Your task to perform on an android device: see creations saved in the google photos Image 0: 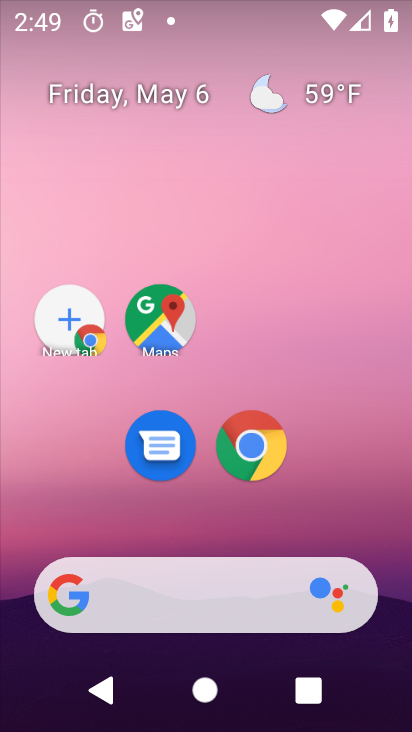
Step 0: drag from (401, 577) to (336, 88)
Your task to perform on an android device: see creations saved in the google photos Image 1: 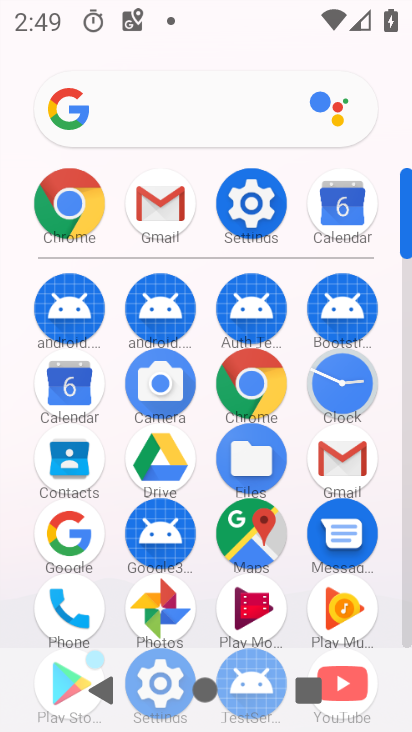
Step 1: drag from (358, 484) to (244, 208)
Your task to perform on an android device: see creations saved in the google photos Image 2: 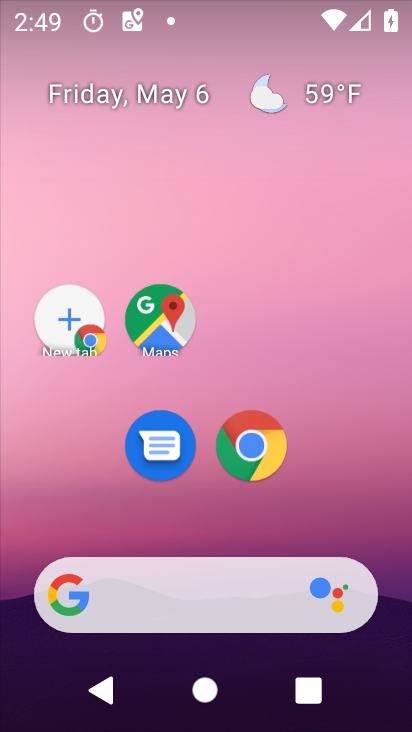
Step 2: drag from (368, 535) to (285, 351)
Your task to perform on an android device: see creations saved in the google photos Image 3: 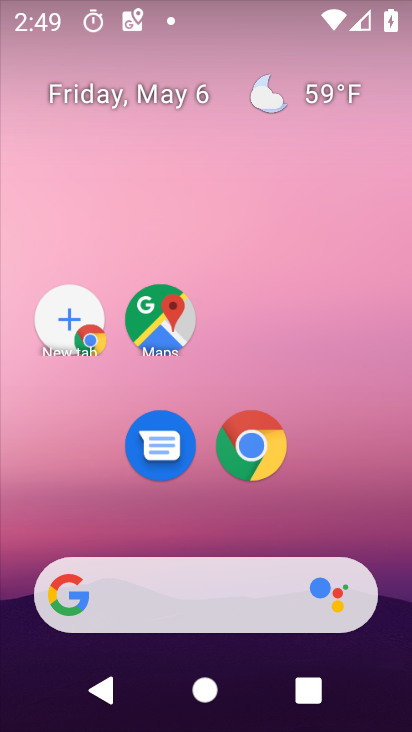
Step 3: drag from (351, 574) to (288, 137)
Your task to perform on an android device: see creations saved in the google photos Image 4: 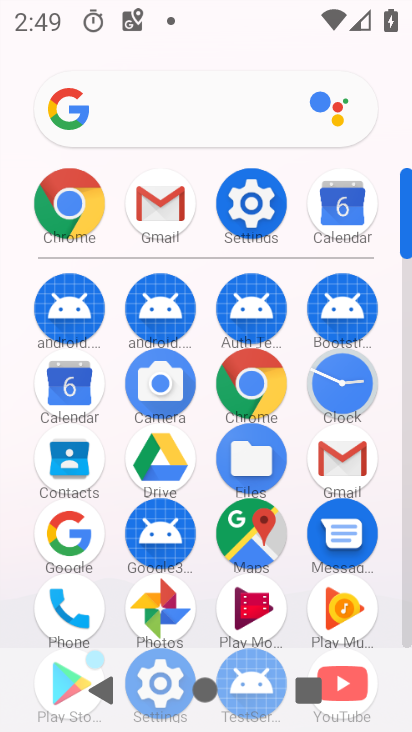
Step 4: click (157, 619)
Your task to perform on an android device: see creations saved in the google photos Image 5: 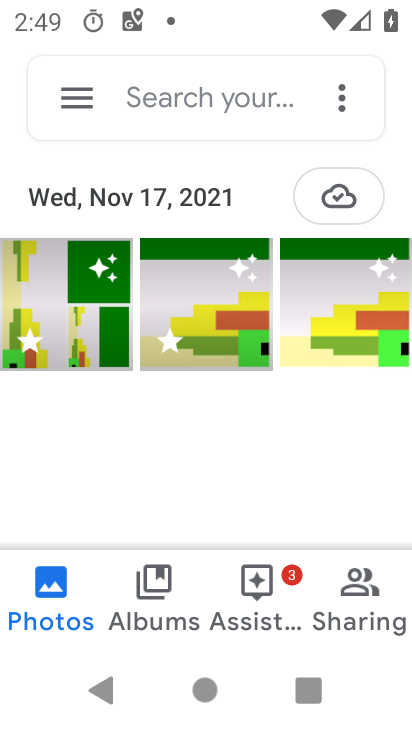
Step 5: task complete